Your task to perform on an android device: Open the stopwatch Image 0: 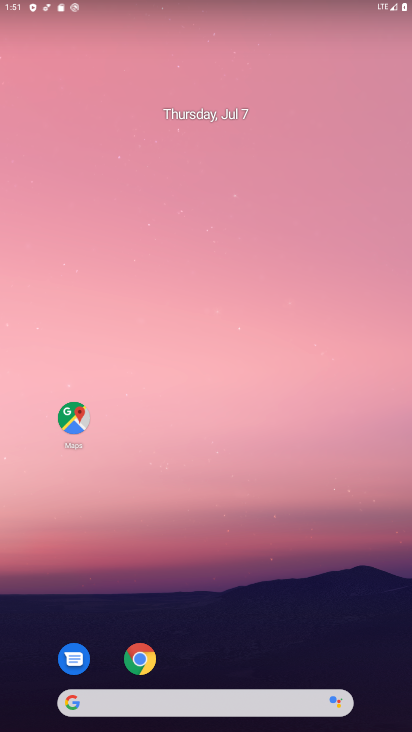
Step 0: drag from (283, 588) to (246, 135)
Your task to perform on an android device: Open the stopwatch Image 1: 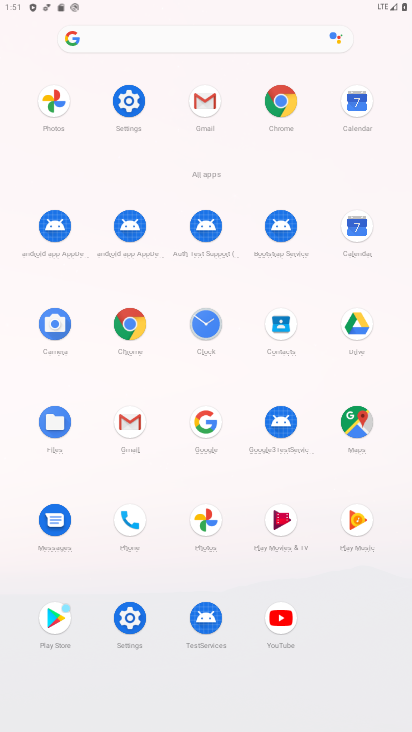
Step 1: click (207, 326)
Your task to perform on an android device: Open the stopwatch Image 2: 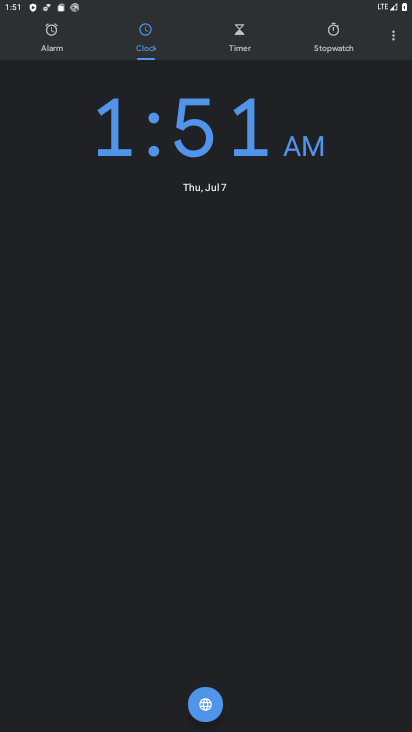
Step 2: click (337, 31)
Your task to perform on an android device: Open the stopwatch Image 3: 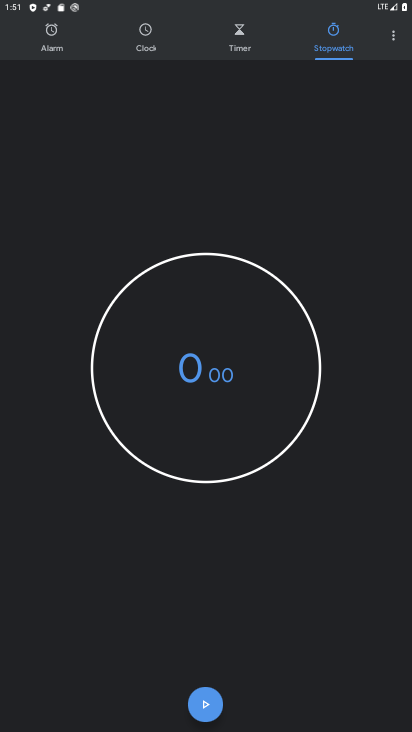
Step 3: task complete